Your task to perform on an android device: change alarm snooze length Image 0: 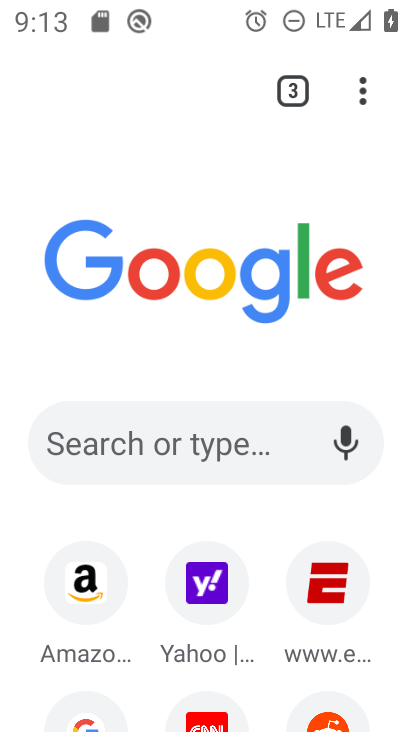
Step 0: press home button
Your task to perform on an android device: change alarm snooze length Image 1: 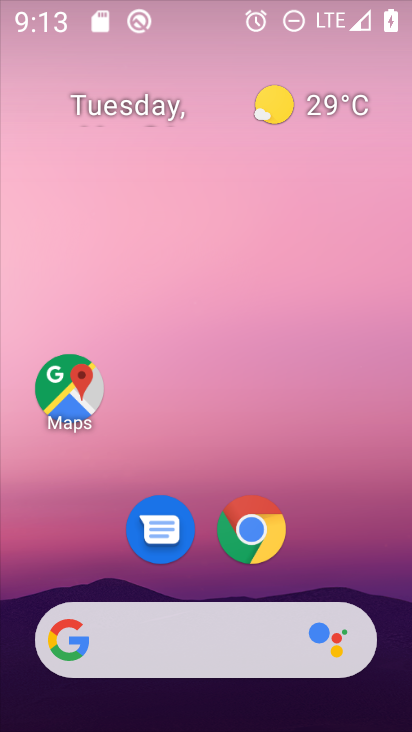
Step 1: drag from (381, 643) to (269, 86)
Your task to perform on an android device: change alarm snooze length Image 2: 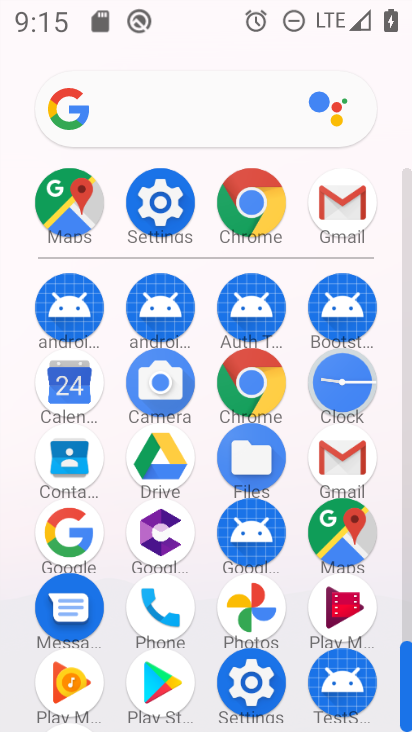
Step 2: click (362, 366)
Your task to perform on an android device: change alarm snooze length Image 3: 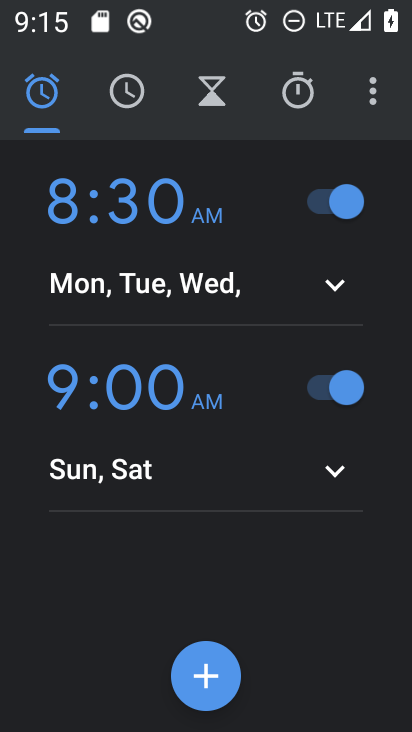
Step 3: click (380, 82)
Your task to perform on an android device: change alarm snooze length Image 4: 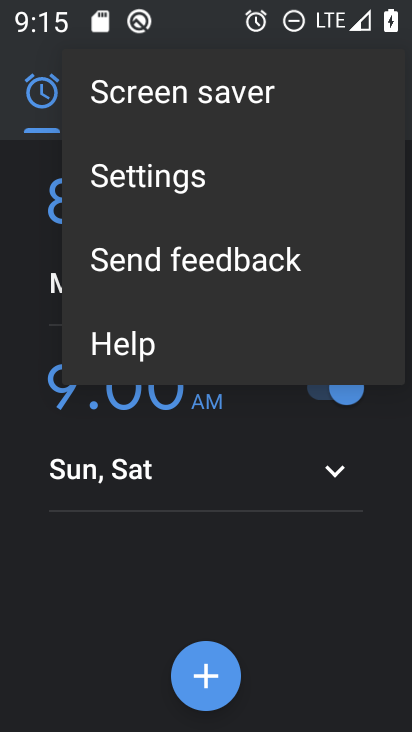
Step 4: click (185, 188)
Your task to perform on an android device: change alarm snooze length Image 5: 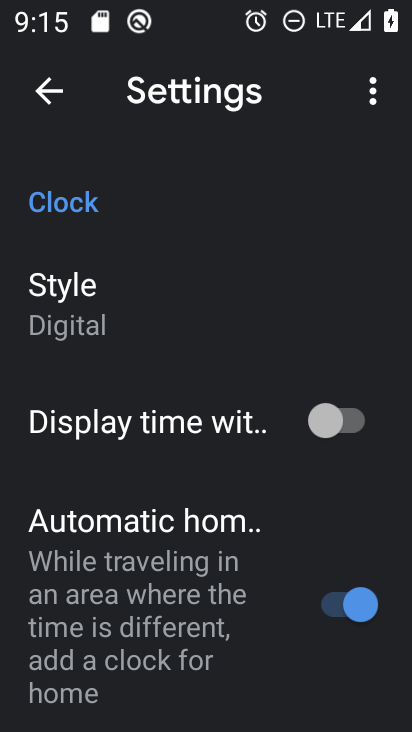
Step 5: drag from (123, 651) to (139, 136)
Your task to perform on an android device: change alarm snooze length Image 6: 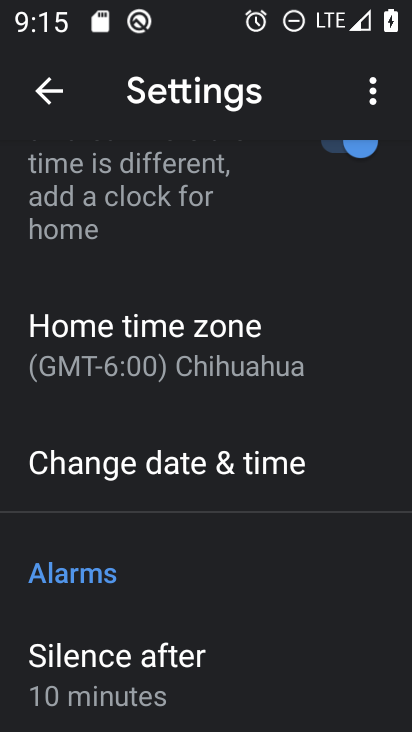
Step 6: drag from (114, 637) to (193, 165)
Your task to perform on an android device: change alarm snooze length Image 7: 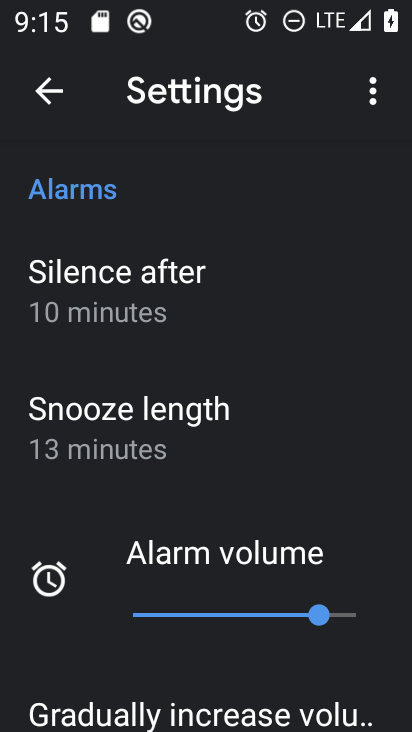
Step 7: click (103, 454)
Your task to perform on an android device: change alarm snooze length Image 8: 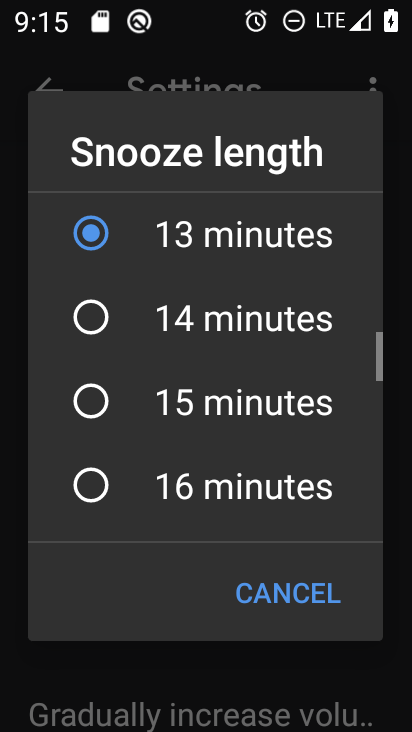
Step 8: click (81, 475)
Your task to perform on an android device: change alarm snooze length Image 9: 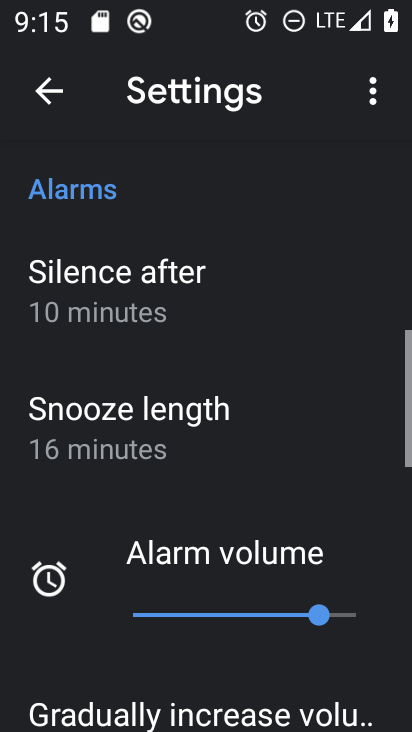
Step 9: task complete